Your task to perform on an android device: Go to display settings Image 0: 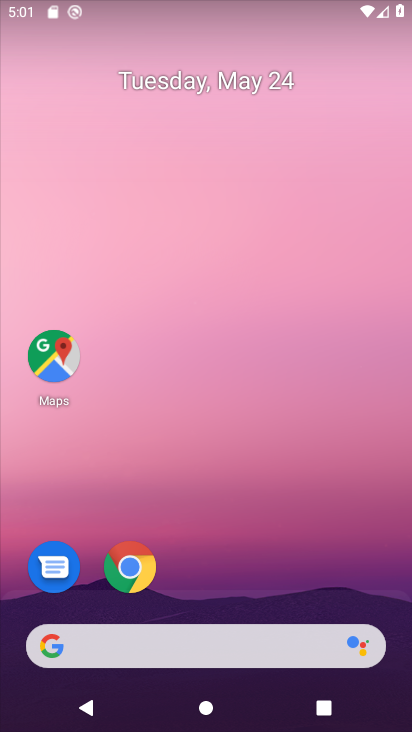
Step 0: drag from (252, 560) to (251, 91)
Your task to perform on an android device: Go to display settings Image 1: 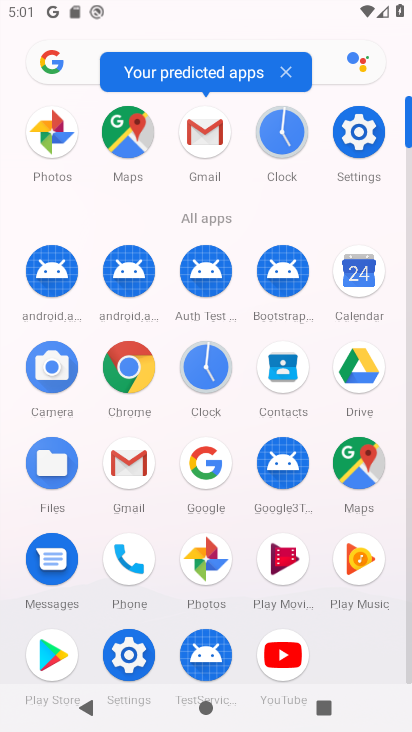
Step 1: click (357, 132)
Your task to perform on an android device: Go to display settings Image 2: 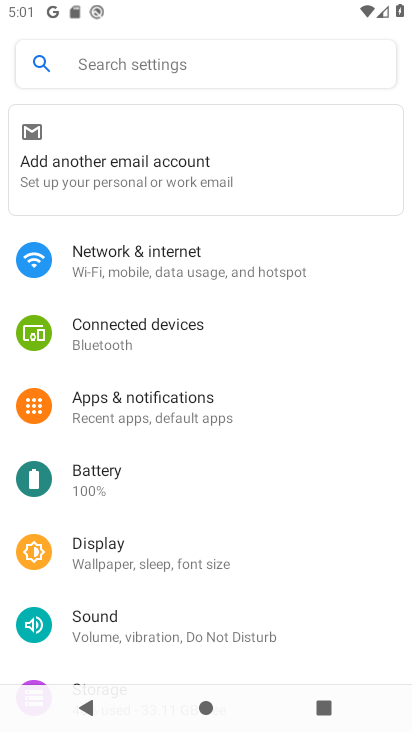
Step 2: click (82, 549)
Your task to perform on an android device: Go to display settings Image 3: 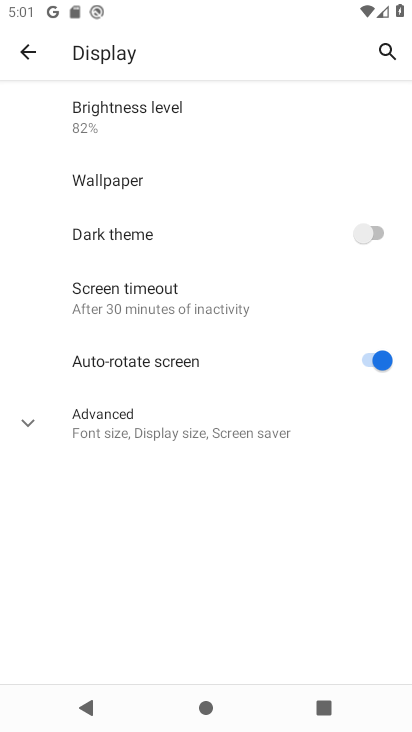
Step 3: task complete